Your task to perform on an android device: Show me recent news Image 0: 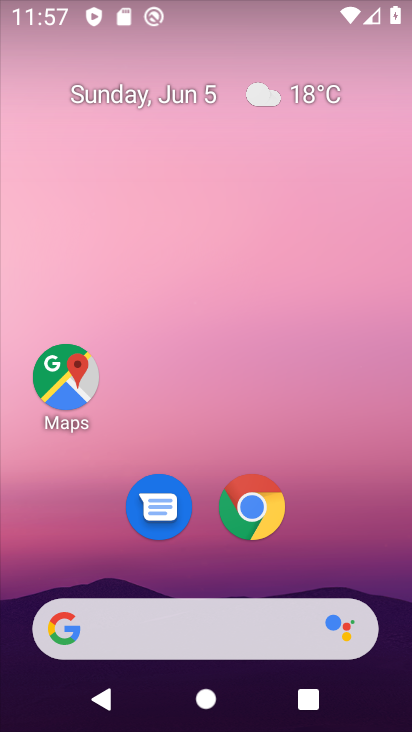
Step 0: click (227, 614)
Your task to perform on an android device: Show me recent news Image 1: 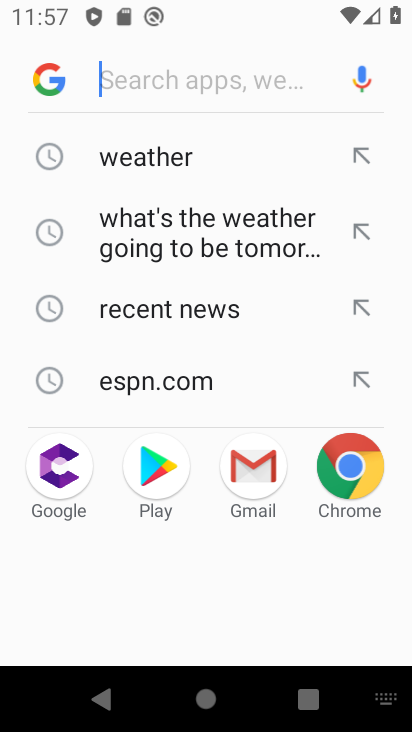
Step 1: click (189, 319)
Your task to perform on an android device: Show me recent news Image 2: 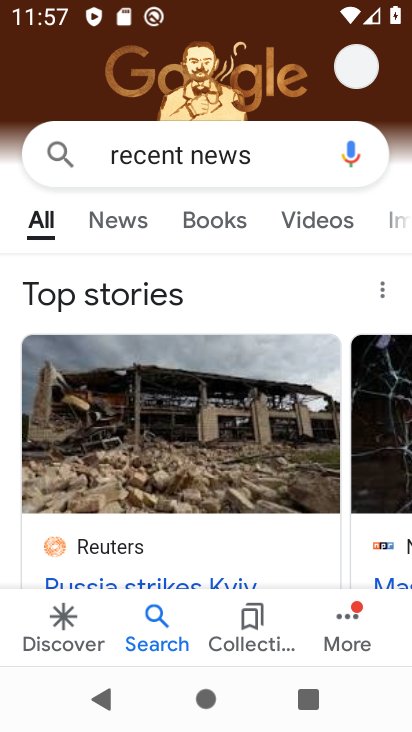
Step 2: task complete